Your task to perform on an android device: add a label to a message in the gmail app Image 0: 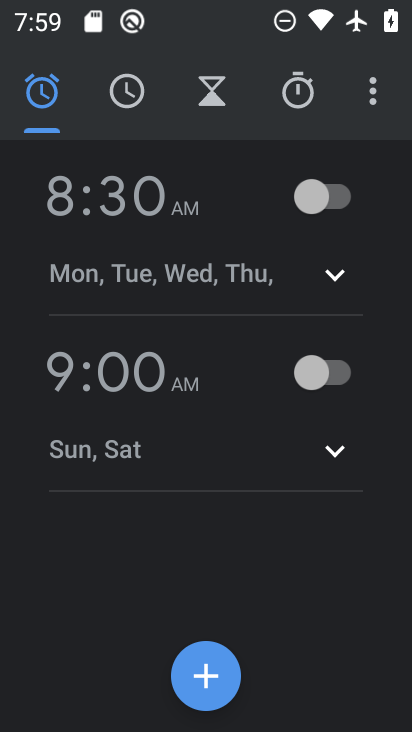
Step 0: press home button
Your task to perform on an android device: add a label to a message in the gmail app Image 1: 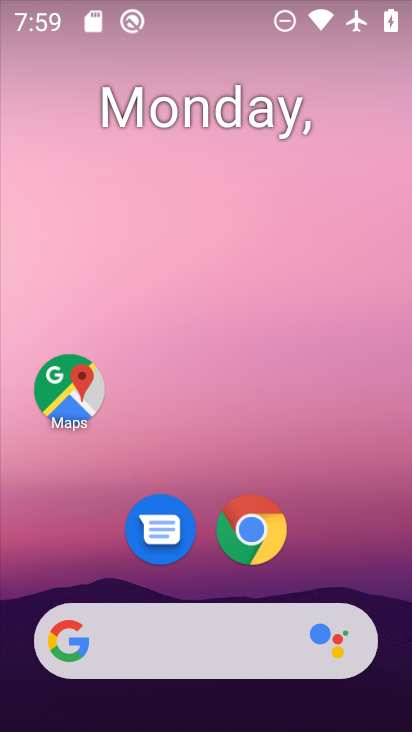
Step 1: drag from (319, 538) to (226, 159)
Your task to perform on an android device: add a label to a message in the gmail app Image 2: 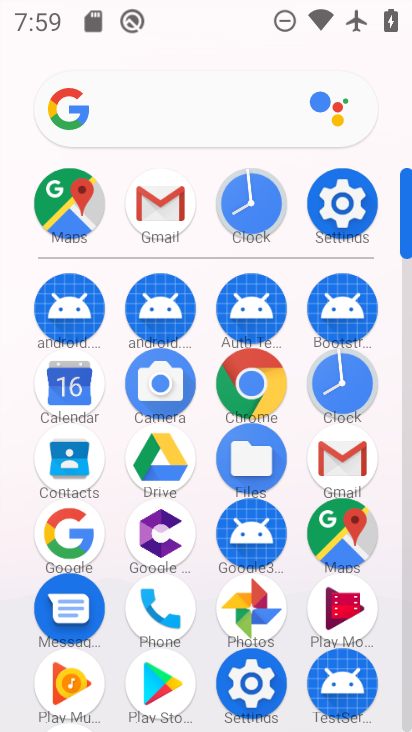
Step 2: click (339, 461)
Your task to perform on an android device: add a label to a message in the gmail app Image 3: 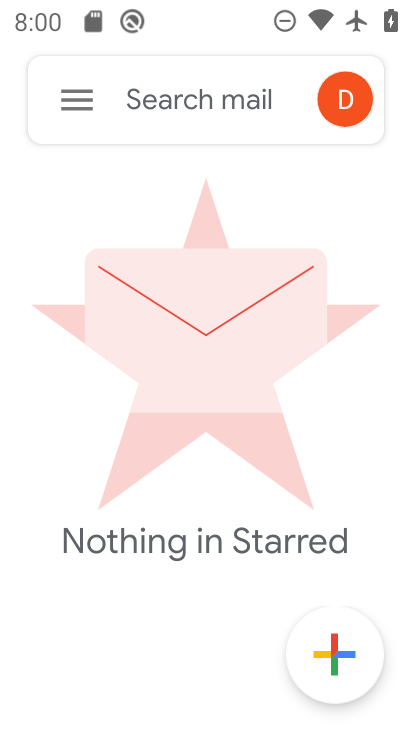
Step 3: click (62, 103)
Your task to perform on an android device: add a label to a message in the gmail app Image 4: 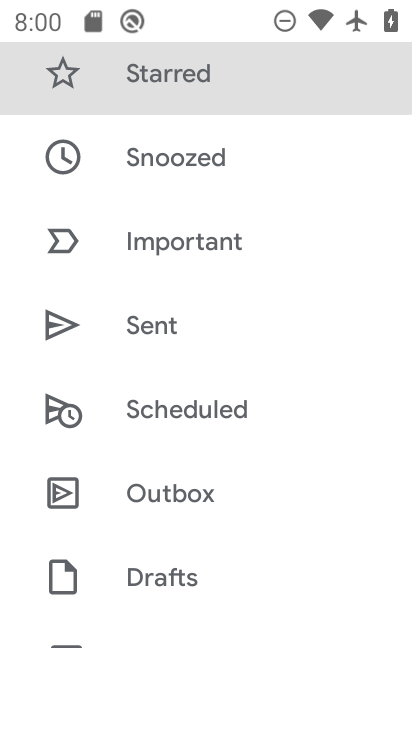
Step 4: task complete